Your task to perform on an android device: Go to sound settings Image 0: 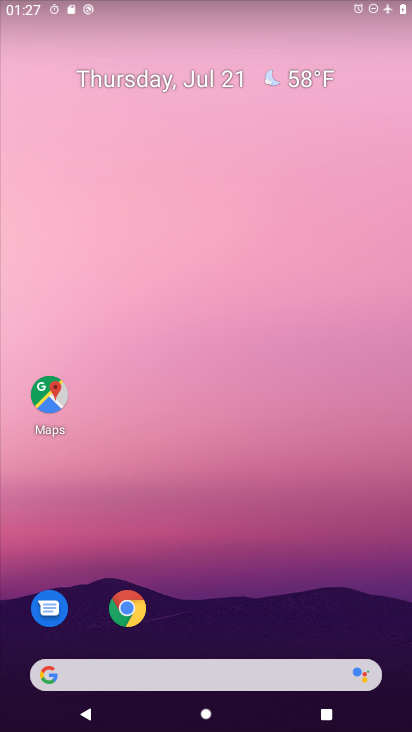
Step 0: drag from (219, 661) to (266, 51)
Your task to perform on an android device: Go to sound settings Image 1: 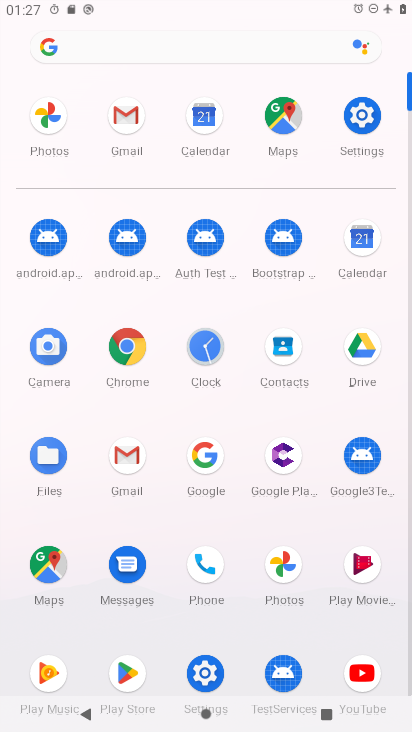
Step 1: click (373, 123)
Your task to perform on an android device: Go to sound settings Image 2: 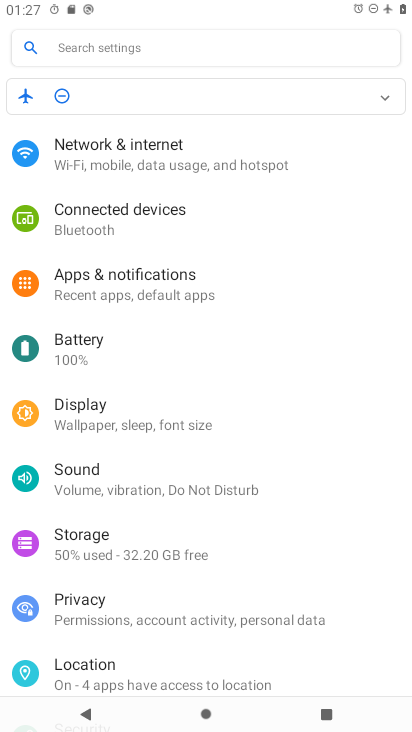
Step 2: click (126, 464)
Your task to perform on an android device: Go to sound settings Image 3: 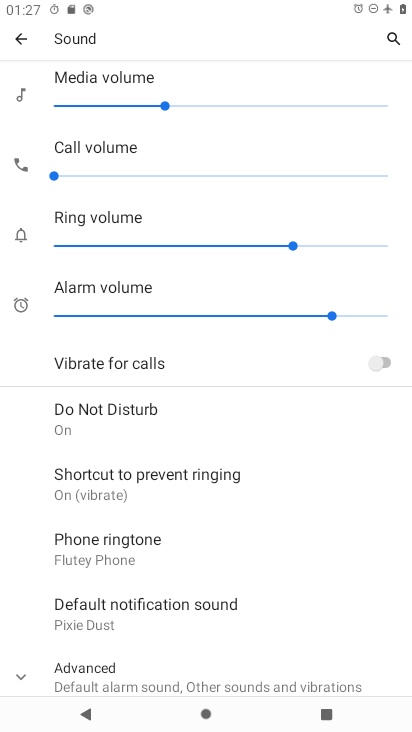
Step 3: task complete